Your task to perform on an android device: Open Chrome and go to settings Image 0: 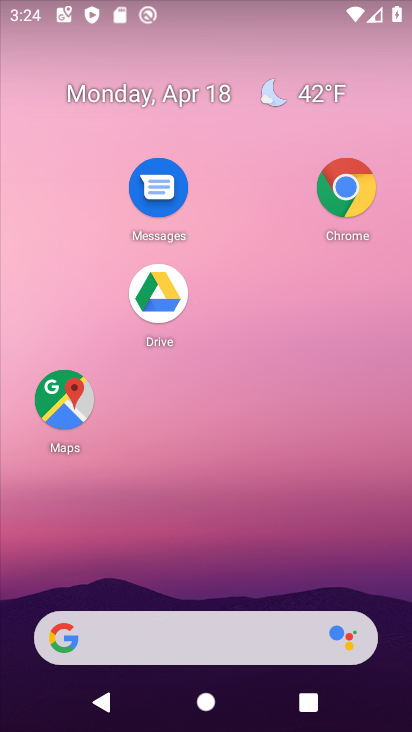
Step 0: click (352, 194)
Your task to perform on an android device: Open Chrome and go to settings Image 1: 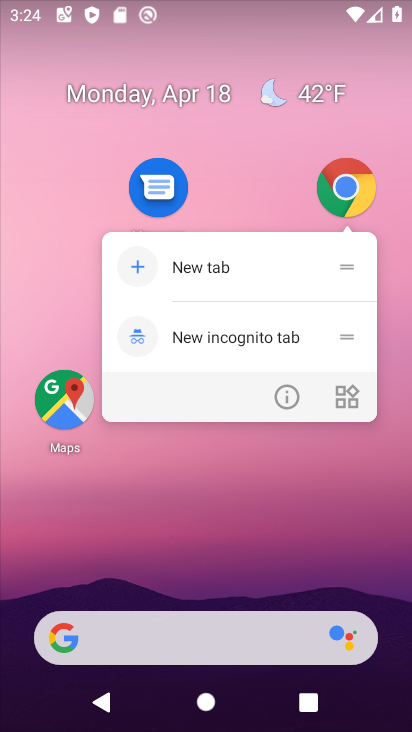
Step 1: click (337, 181)
Your task to perform on an android device: Open Chrome and go to settings Image 2: 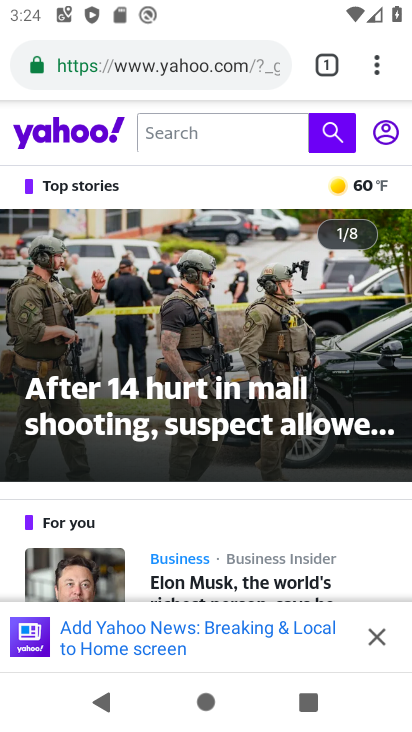
Step 2: click (375, 63)
Your task to perform on an android device: Open Chrome and go to settings Image 3: 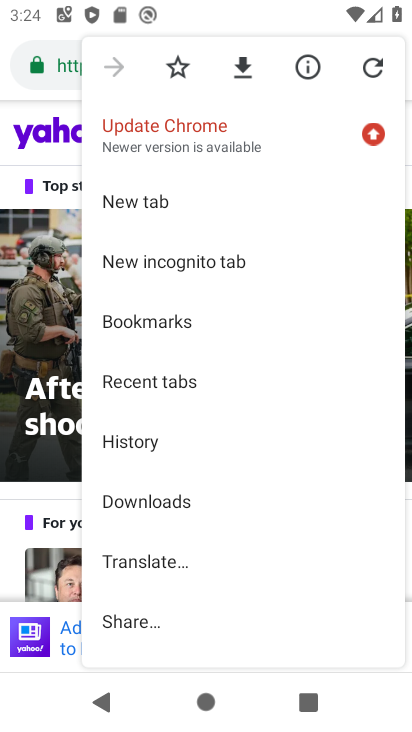
Step 3: drag from (216, 480) to (248, 376)
Your task to perform on an android device: Open Chrome and go to settings Image 4: 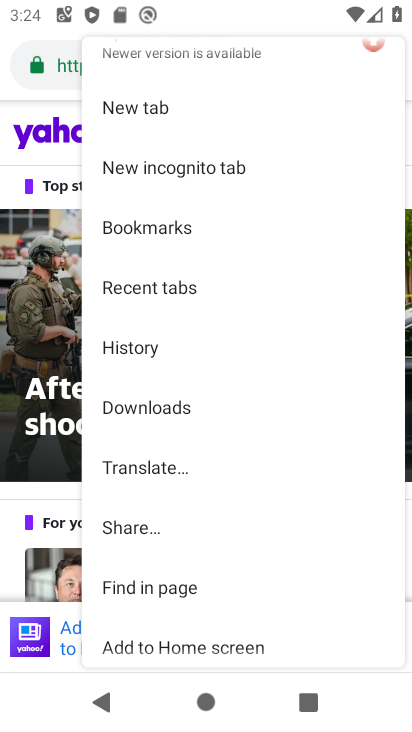
Step 4: drag from (220, 544) to (258, 409)
Your task to perform on an android device: Open Chrome and go to settings Image 5: 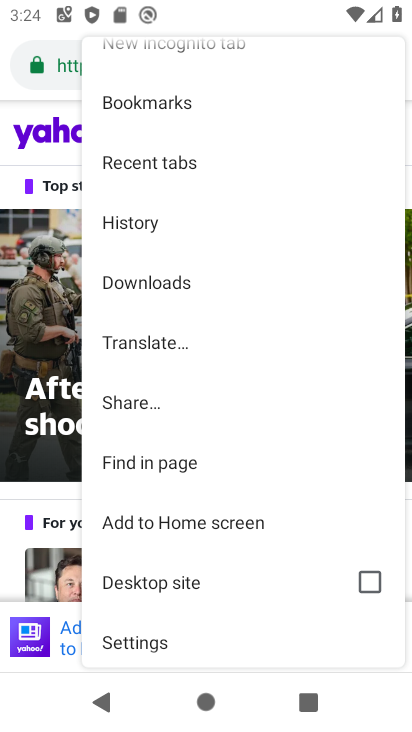
Step 5: click (142, 642)
Your task to perform on an android device: Open Chrome and go to settings Image 6: 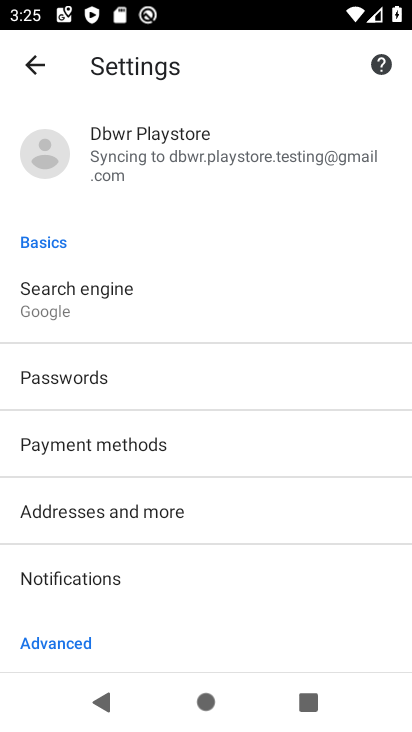
Step 6: task complete